Your task to perform on an android device: Go to battery settings Image 0: 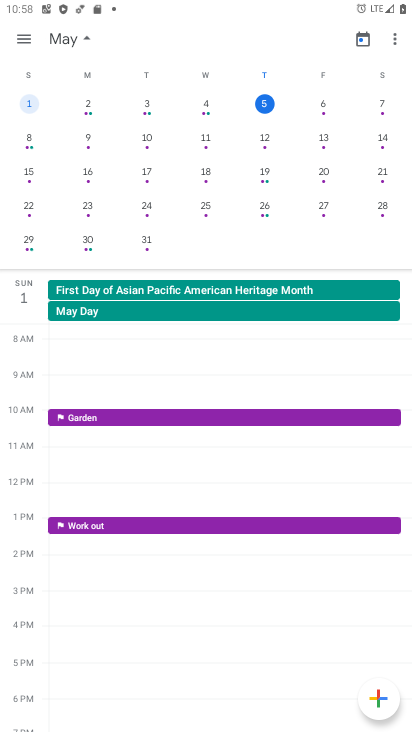
Step 0: press home button
Your task to perform on an android device: Go to battery settings Image 1: 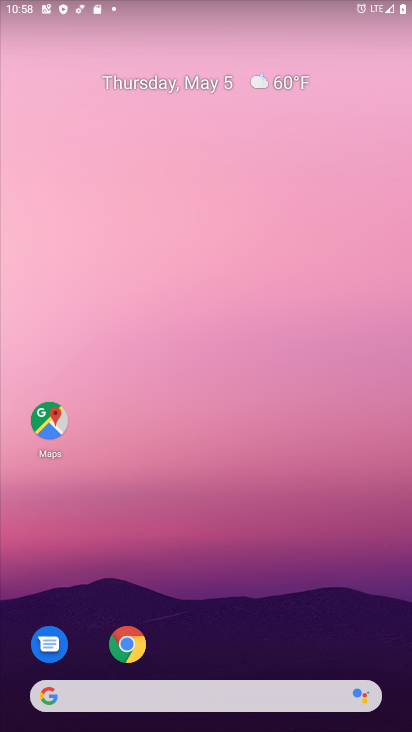
Step 1: drag from (213, 514) to (203, 258)
Your task to perform on an android device: Go to battery settings Image 2: 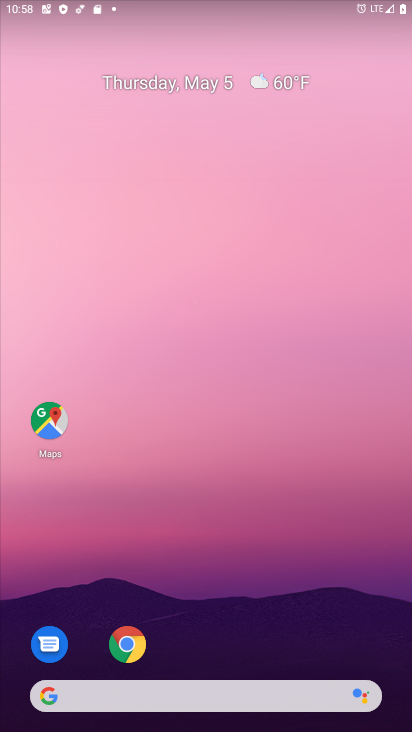
Step 2: drag from (264, 631) to (275, 127)
Your task to perform on an android device: Go to battery settings Image 3: 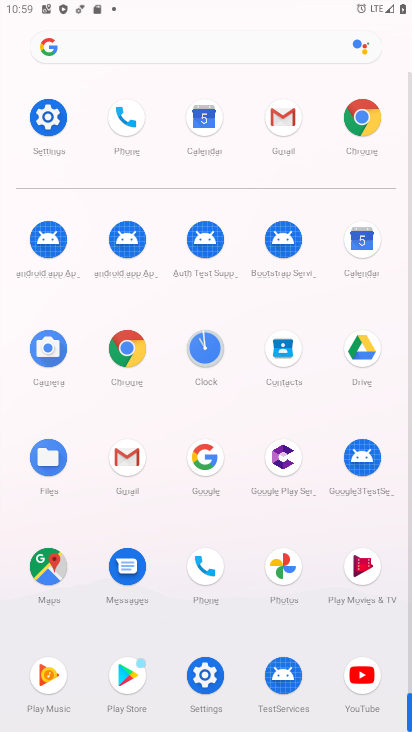
Step 3: click (43, 127)
Your task to perform on an android device: Go to battery settings Image 4: 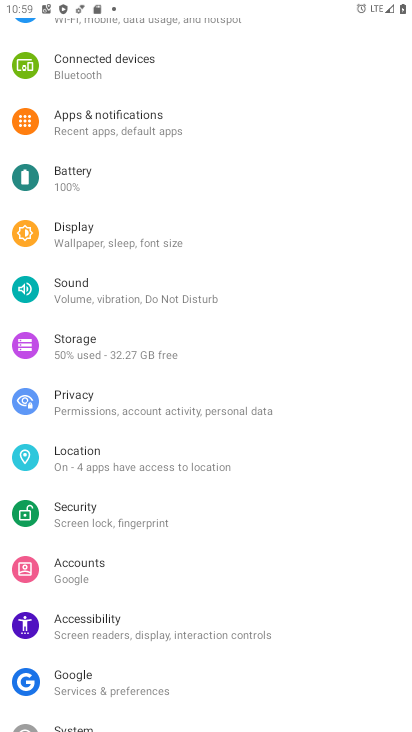
Step 4: click (108, 178)
Your task to perform on an android device: Go to battery settings Image 5: 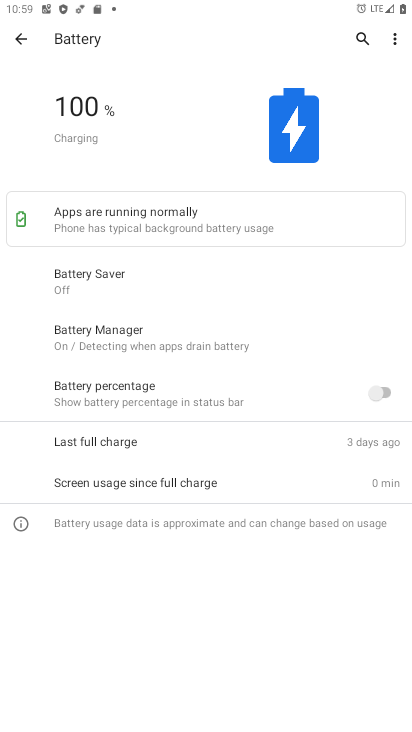
Step 5: task complete